Your task to perform on an android device: Go to Amazon Image 0: 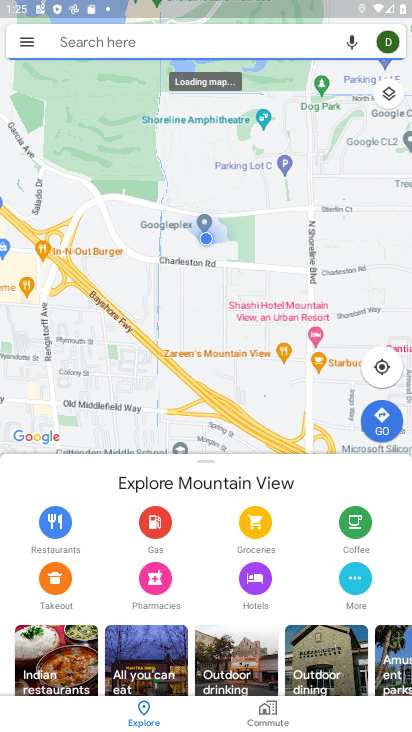
Step 0: press home button
Your task to perform on an android device: Go to Amazon Image 1: 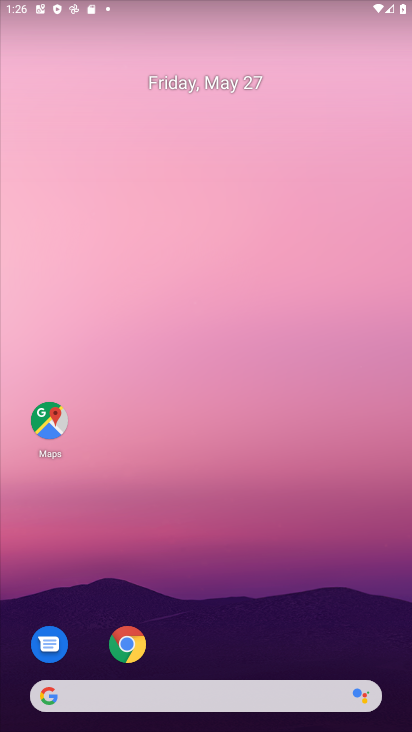
Step 1: drag from (308, 637) to (154, 9)
Your task to perform on an android device: Go to Amazon Image 2: 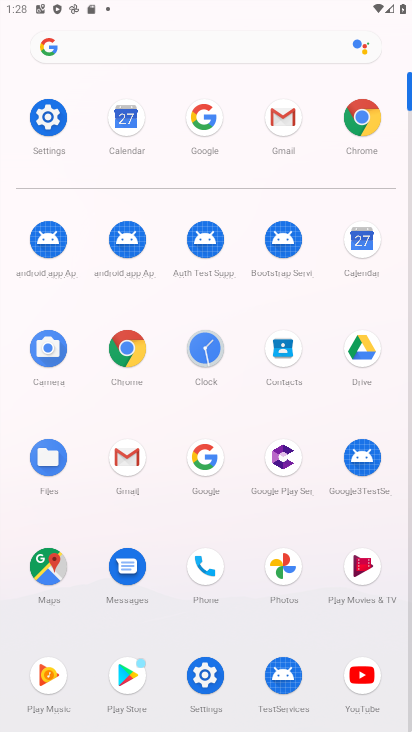
Step 2: click (203, 459)
Your task to perform on an android device: Go to Amazon Image 3: 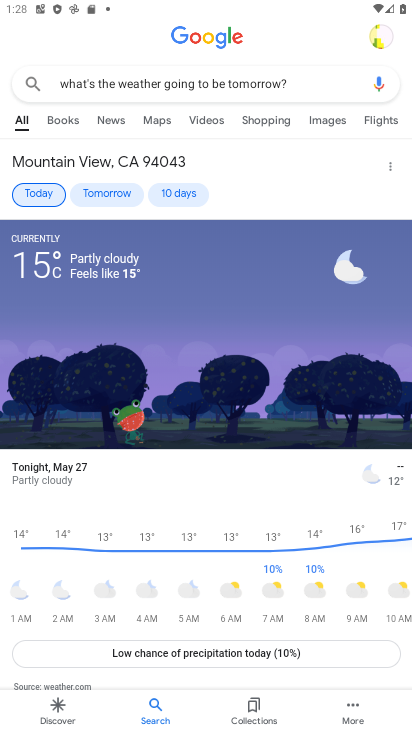
Step 3: press back button
Your task to perform on an android device: Go to Amazon Image 4: 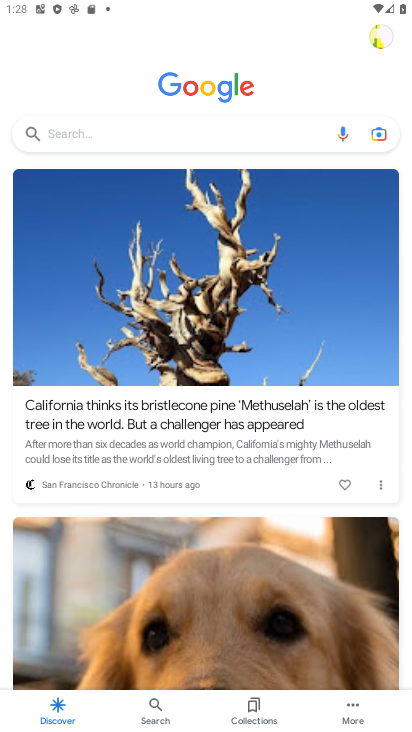
Step 4: click (154, 116)
Your task to perform on an android device: Go to Amazon Image 5: 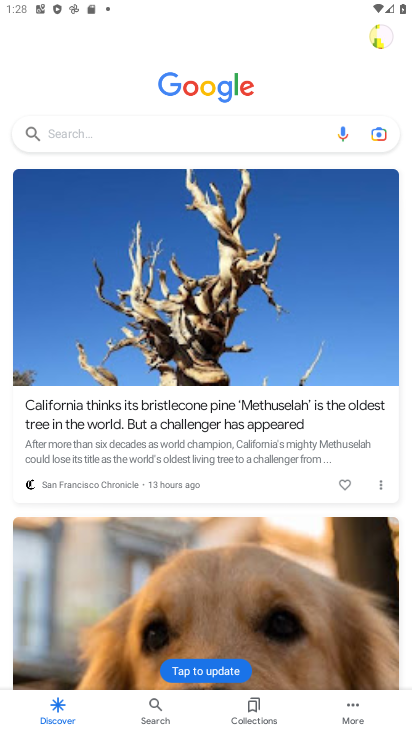
Step 5: click (137, 125)
Your task to perform on an android device: Go to Amazon Image 6: 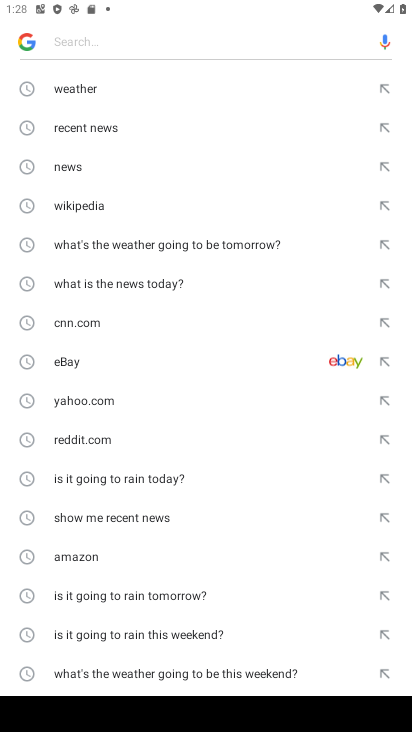
Step 6: click (101, 552)
Your task to perform on an android device: Go to Amazon Image 7: 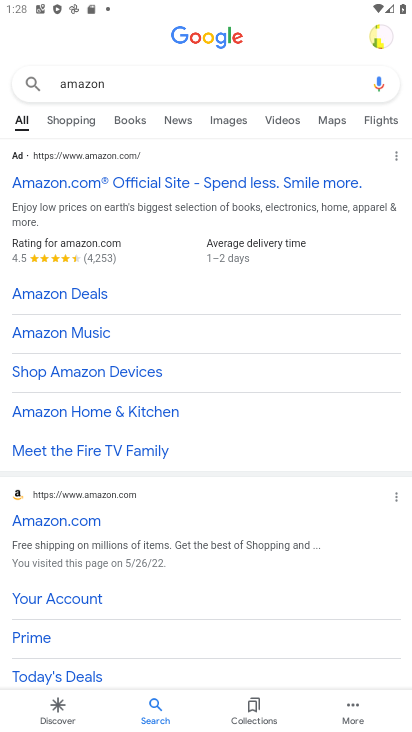
Step 7: task complete